Your task to perform on an android device: Open Google Chrome and click the shortcut for Amazon.com Image 0: 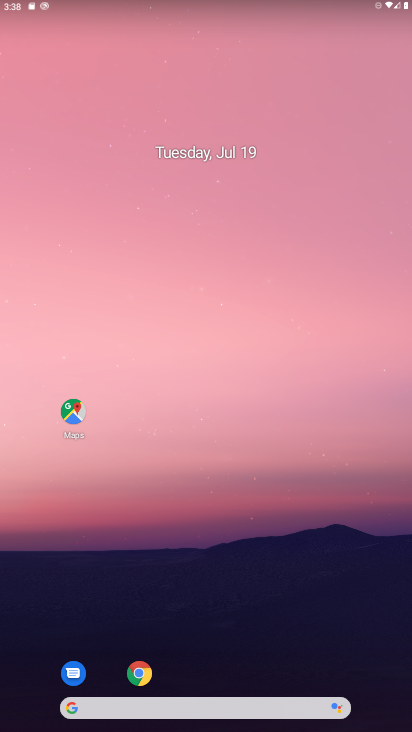
Step 0: click (146, 671)
Your task to perform on an android device: Open Google Chrome and click the shortcut for Amazon.com Image 1: 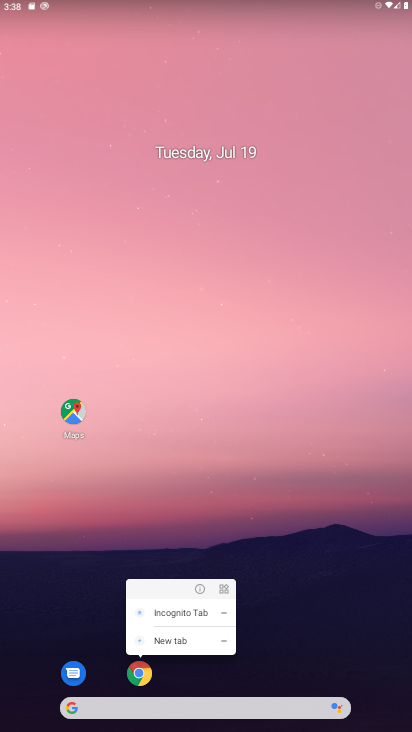
Step 1: click (145, 672)
Your task to perform on an android device: Open Google Chrome and click the shortcut for Amazon.com Image 2: 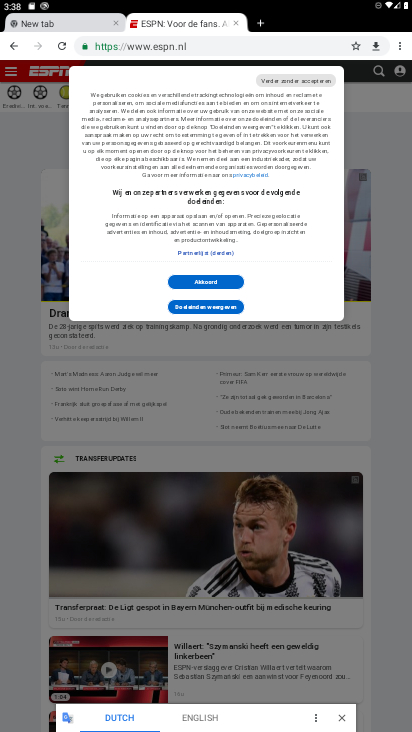
Step 2: click (71, 24)
Your task to perform on an android device: Open Google Chrome and click the shortcut for Amazon.com Image 3: 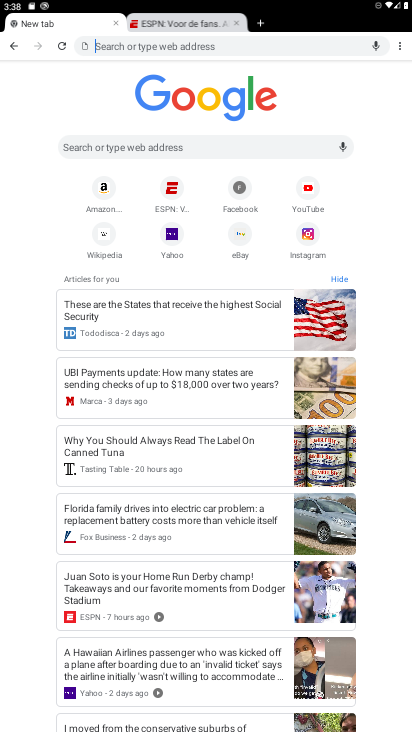
Step 3: click (107, 190)
Your task to perform on an android device: Open Google Chrome and click the shortcut for Amazon.com Image 4: 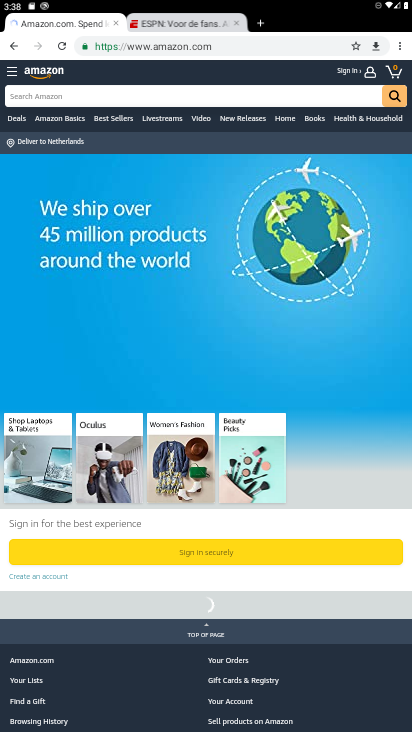
Step 4: task complete